Your task to perform on an android device: set default search engine in the chrome app Image 0: 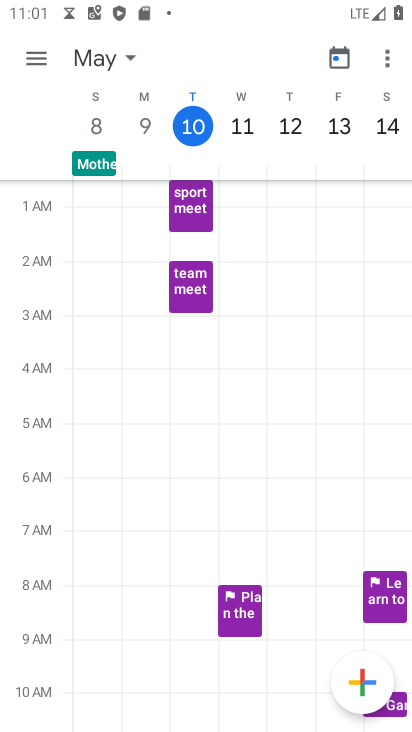
Step 0: press home button
Your task to perform on an android device: set default search engine in the chrome app Image 1: 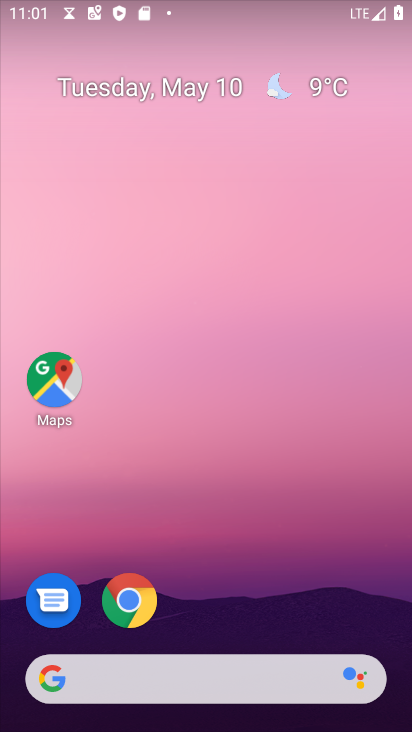
Step 1: click (127, 601)
Your task to perform on an android device: set default search engine in the chrome app Image 2: 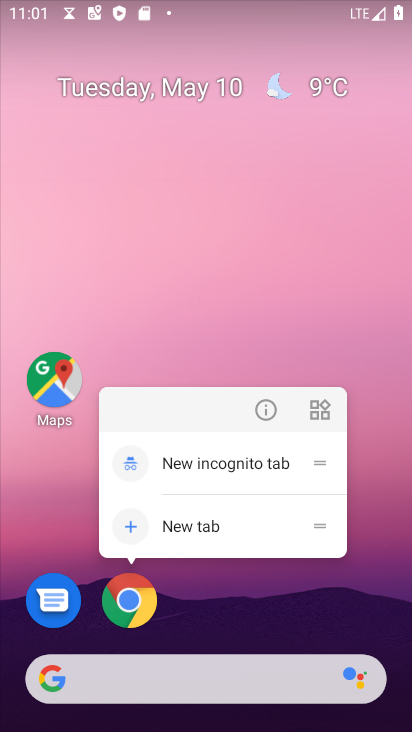
Step 2: click (139, 607)
Your task to perform on an android device: set default search engine in the chrome app Image 3: 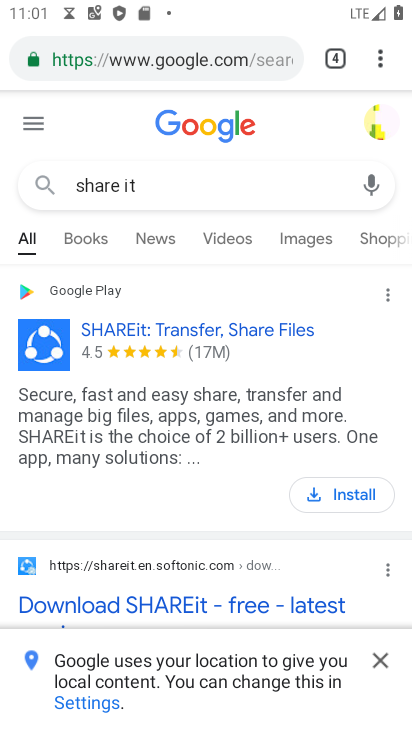
Step 3: click (371, 59)
Your task to perform on an android device: set default search engine in the chrome app Image 4: 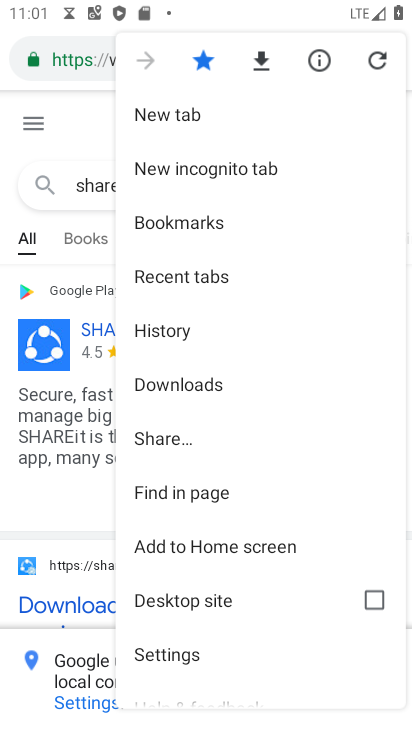
Step 4: click (185, 636)
Your task to perform on an android device: set default search engine in the chrome app Image 5: 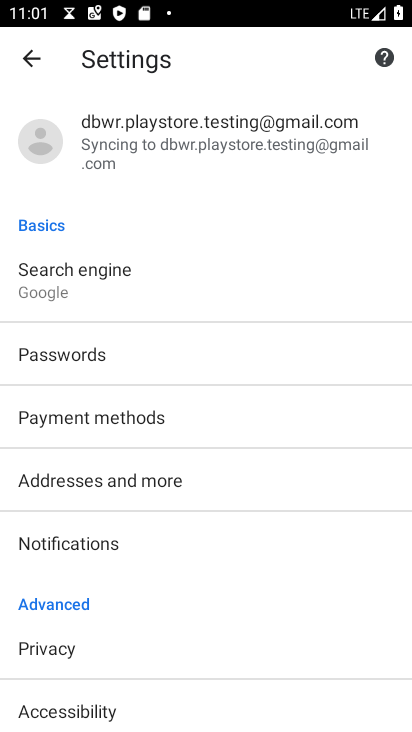
Step 5: click (159, 269)
Your task to perform on an android device: set default search engine in the chrome app Image 6: 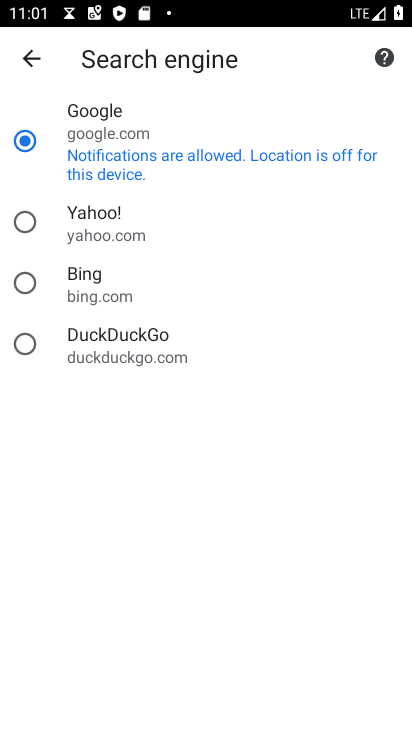
Step 6: click (148, 122)
Your task to perform on an android device: set default search engine in the chrome app Image 7: 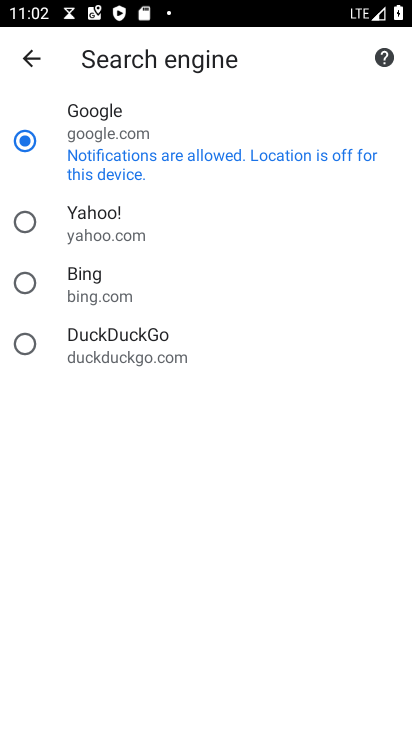
Step 7: task complete